Your task to perform on an android device: toggle priority inbox in the gmail app Image 0: 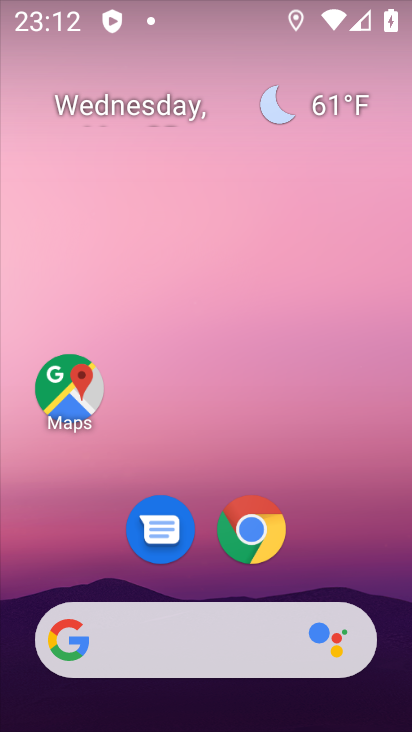
Step 0: drag from (386, 576) to (378, 243)
Your task to perform on an android device: toggle priority inbox in the gmail app Image 1: 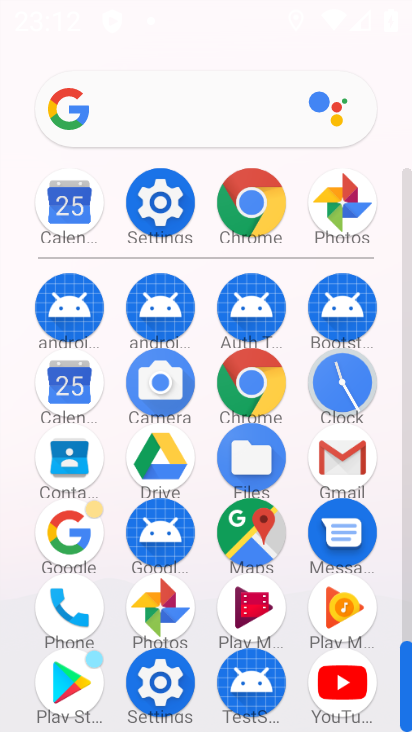
Step 1: click (354, 464)
Your task to perform on an android device: toggle priority inbox in the gmail app Image 2: 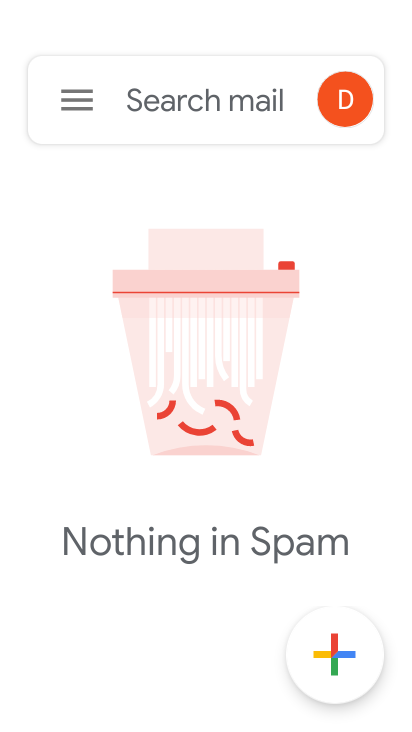
Step 2: click (81, 103)
Your task to perform on an android device: toggle priority inbox in the gmail app Image 3: 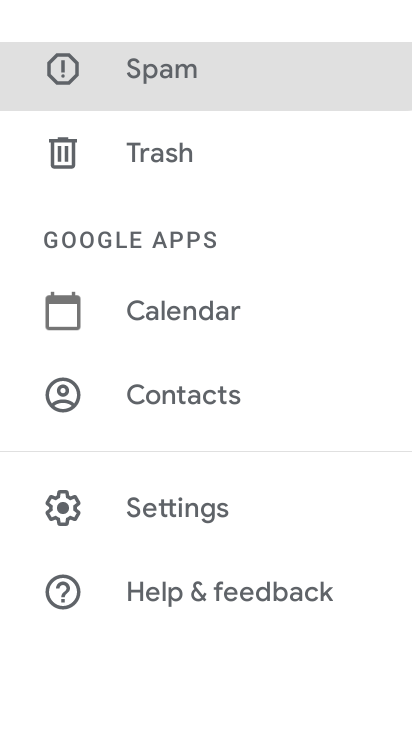
Step 3: click (249, 522)
Your task to perform on an android device: toggle priority inbox in the gmail app Image 4: 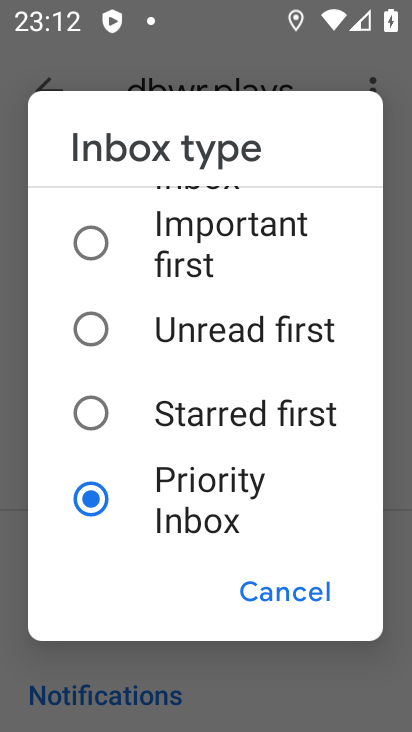
Step 4: task complete